Your task to perform on an android device: toggle data saver in the chrome app Image 0: 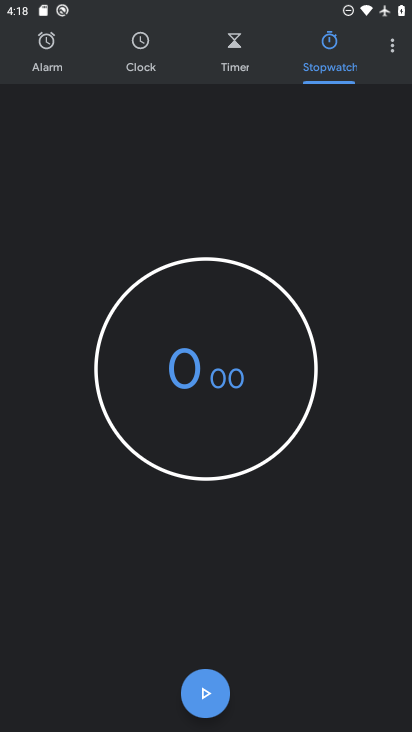
Step 0: press home button
Your task to perform on an android device: toggle data saver in the chrome app Image 1: 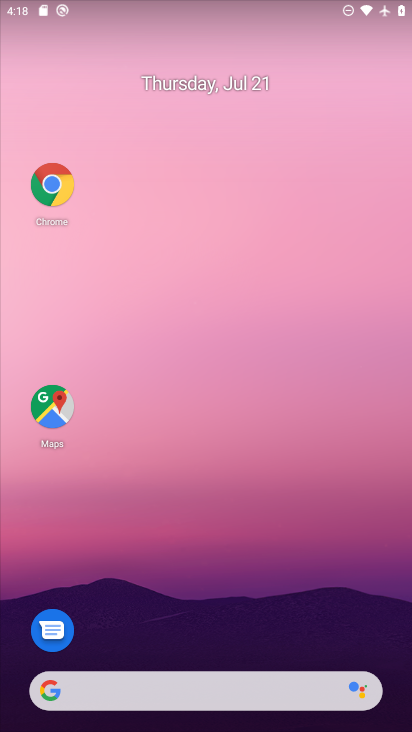
Step 1: drag from (188, 679) to (191, 54)
Your task to perform on an android device: toggle data saver in the chrome app Image 2: 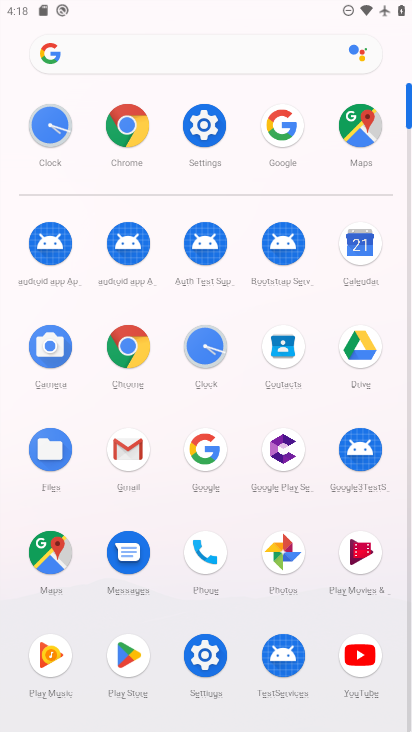
Step 2: click (130, 349)
Your task to perform on an android device: toggle data saver in the chrome app Image 3: 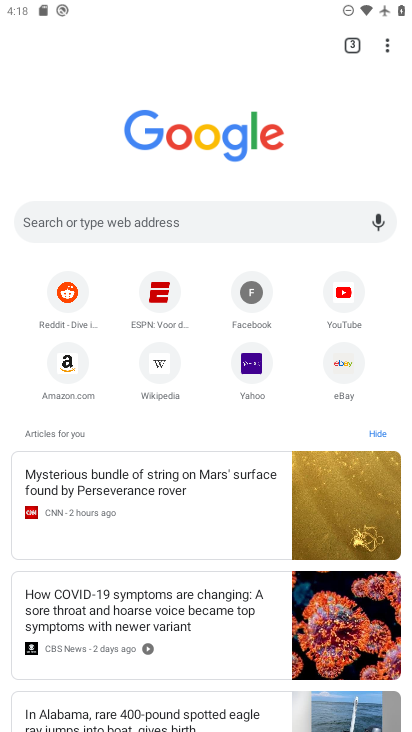
Step 3: click (392, 52)
Your task to perform on an android device: toggle data saver in the chrome app Image 4: 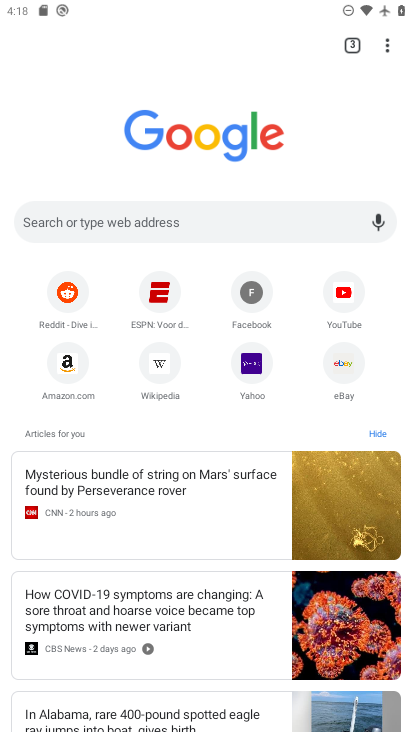
Step 4: drag from (388, 40) to (246, 389)
Your task to perform on an android device: toggle data saver in the chrome app Image 5: 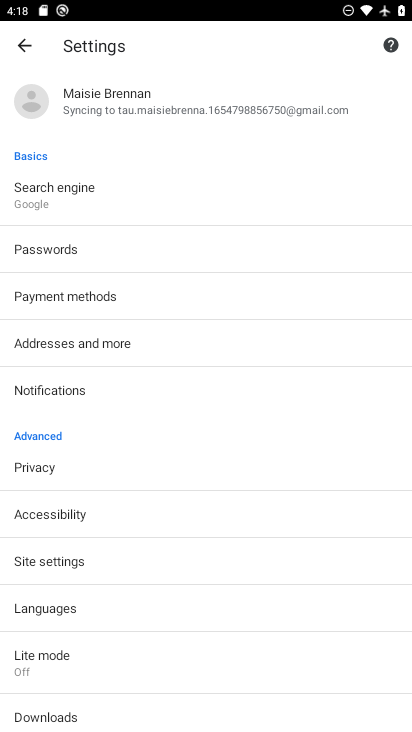
Step 5: click (64, 562)
Your task to perform on an android device: toggle data saver in the chrome app Image 6: 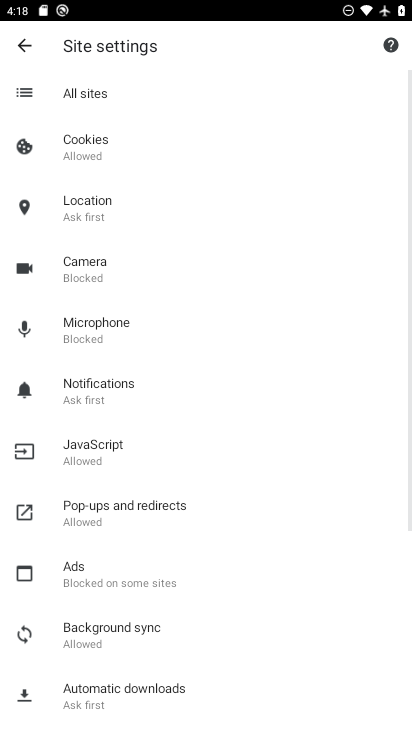
Step 6: click (16, 46)
Your task to perform on an android device: toggle data saver in the chrome app Image 7: 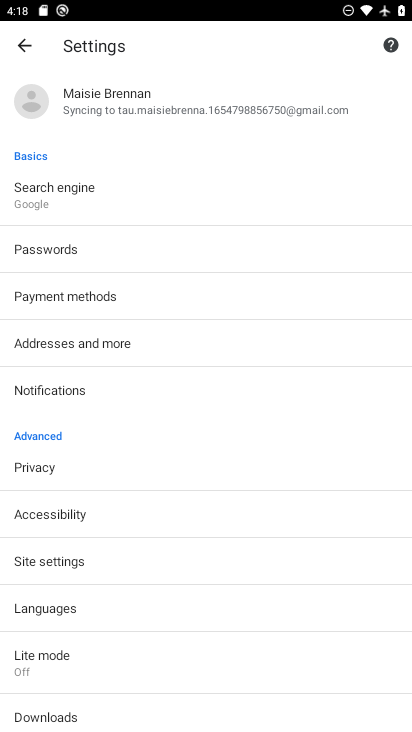
Step 7: click (84, 659)
Your task to perform on an android device: toggle data saver in the chrome app Image 8: 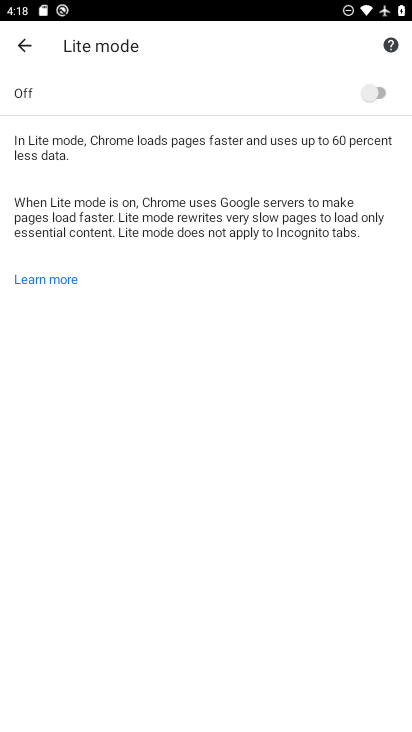
Step 8: click (378, 103)
Your task to perform on an android device: toggle data saver in the chrome app Image 9: 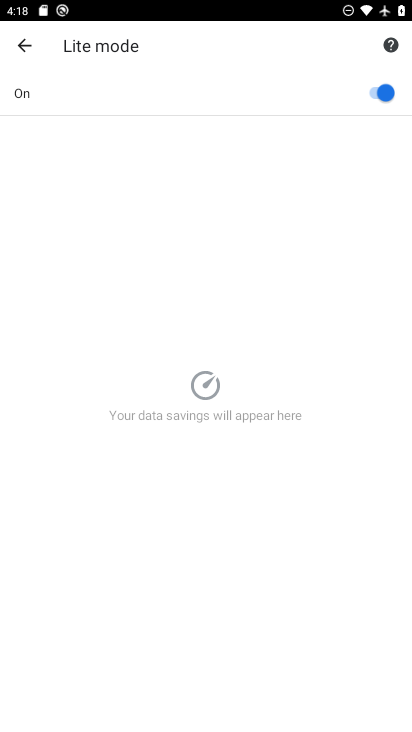
Step 9: task complete